Your task to perform on an android device: open a new tab in the chrome app Image 0: 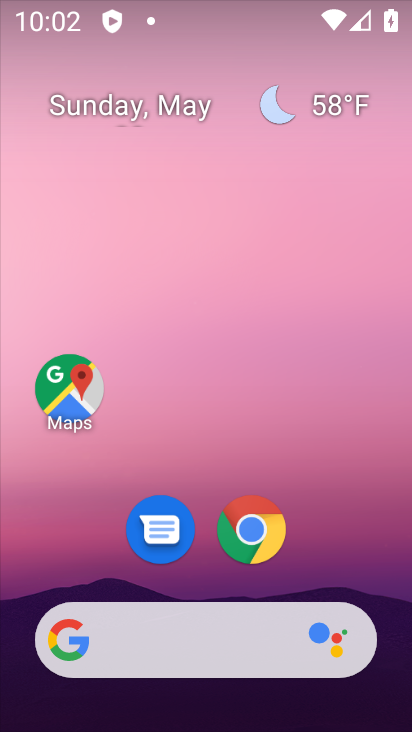
Step 0: click (267, 541)
Your task to perform on an android device: open a new tab in the chrome app Image 1: 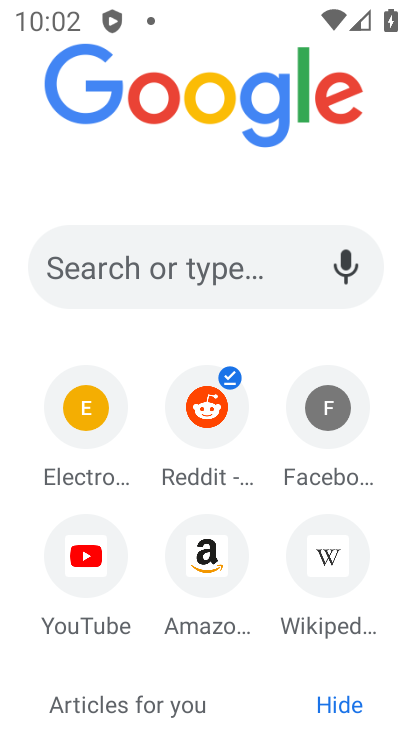
Step 1: drag from (338, 200) to (354, 610)
Your task to perform on an android device: open a new tab in the chrome app Image 2: 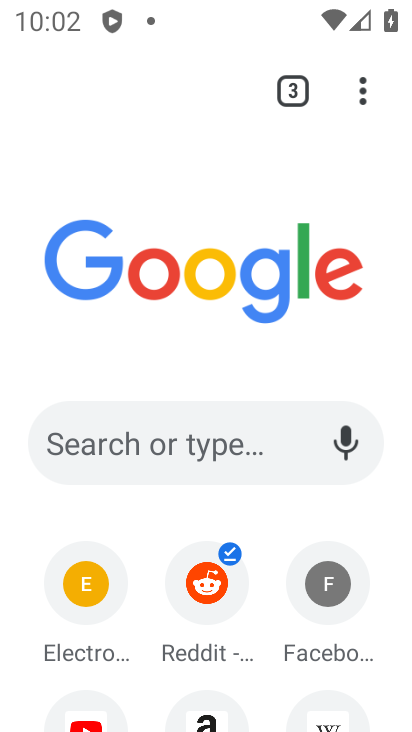
Step 2: click (358, 77)
Your task to perform on an android device: open a new tab in the chrome app Image 3: 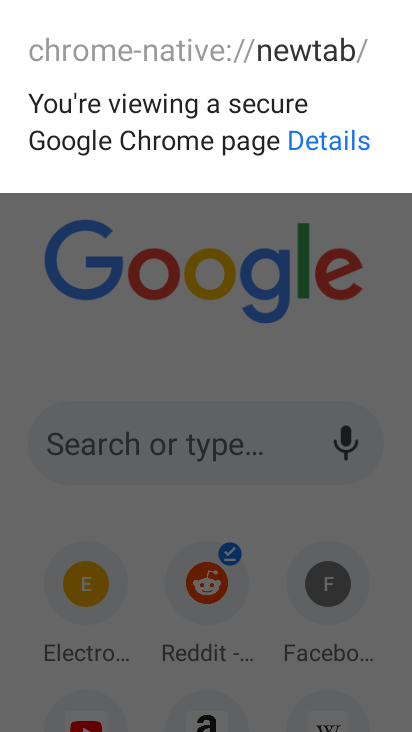
Step 3: click (290, 237)
Your task to perform on an android device: open a new tab in the chrome app Image 4: 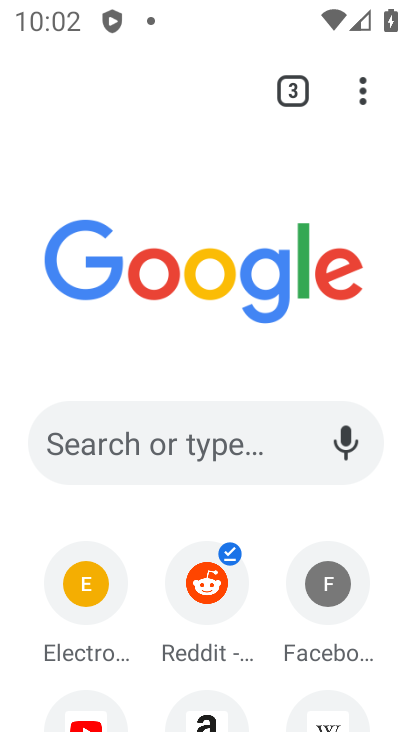
Step 4: click (376, 93)
Your task to perform on an android device: open a new tab in the chrome app Image 5: 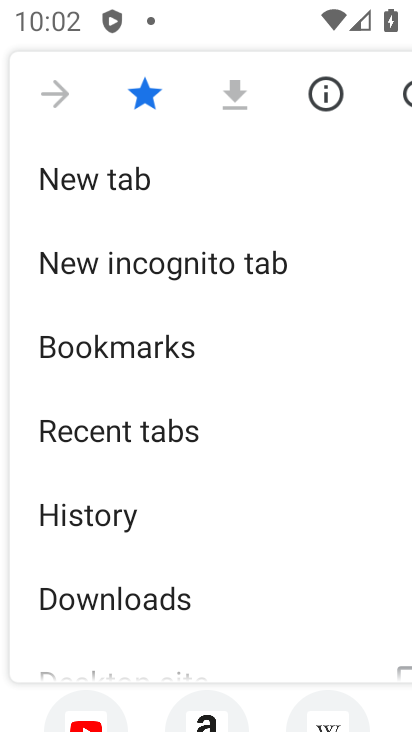
Step 5: click (120, 174)
Your task to perform on an android device: open a new tab in the chrome app Image 6: 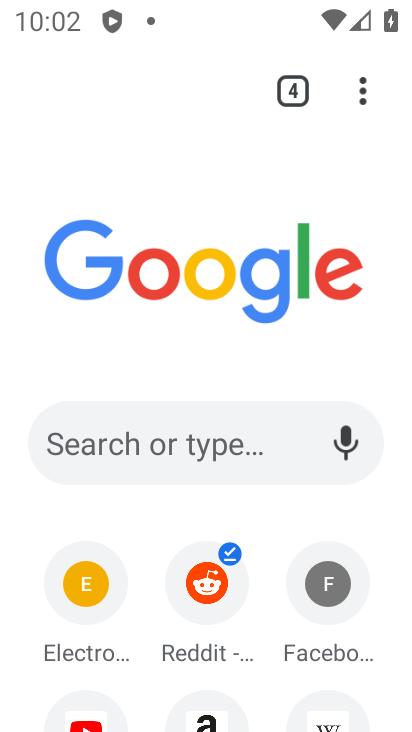
Step 6: task complete